Your task to perform on an android device: open app "Pinterest" Image 0: 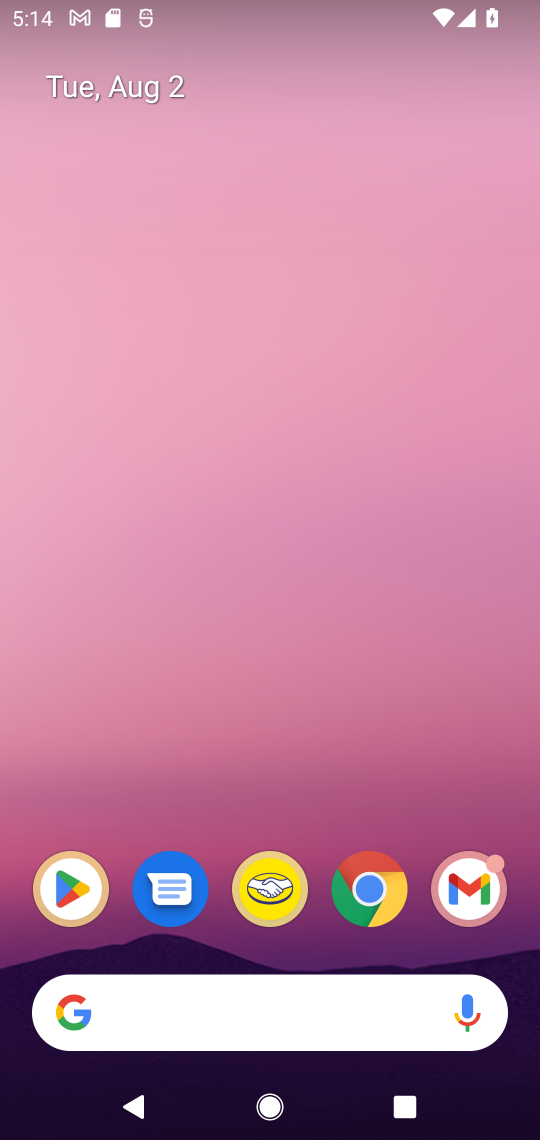
Step 0: drag from (425, 799) to (414, 119)
Your task to perform on an android device: open app "Pinterest" Image 1: 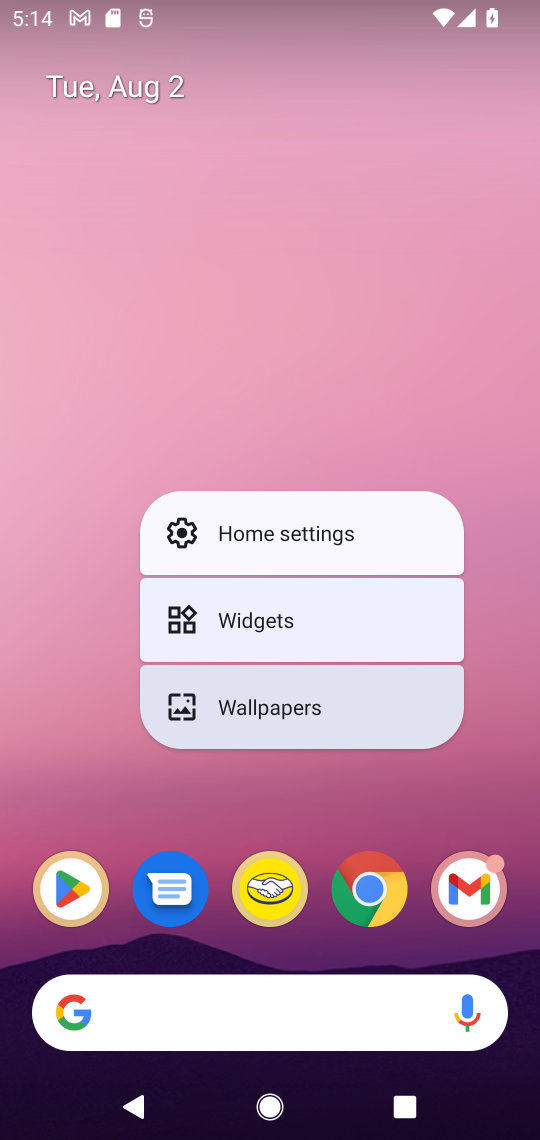
Step 1: click (503, 702)
Your task to perform on an android device: open app "Pinterest" Image 2: 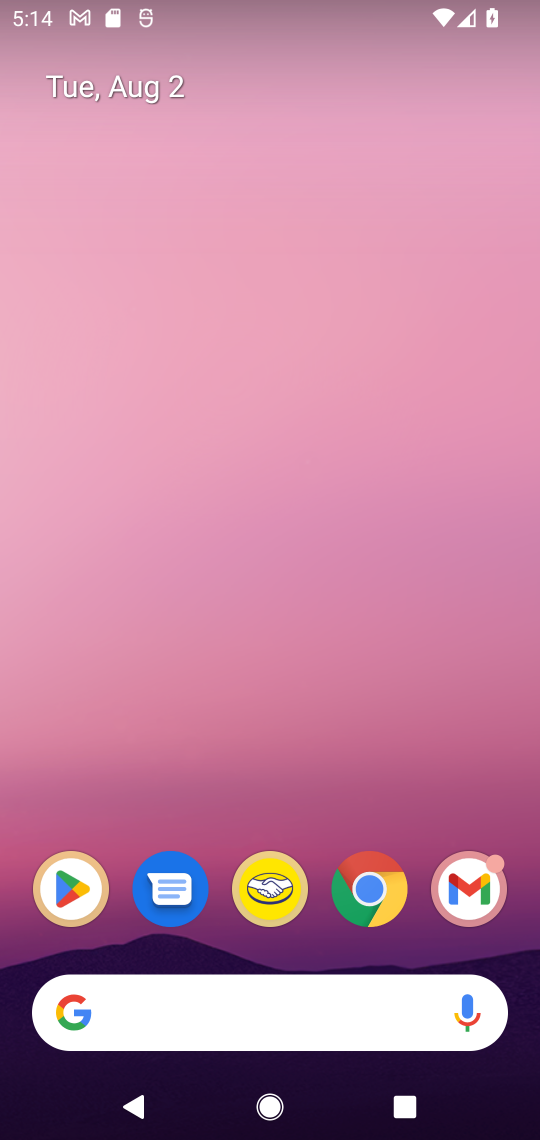
Step 2: drag from (367, 751) to (344, 133)
Your task to perform on an android device: open app "Pinterest" Image 3: 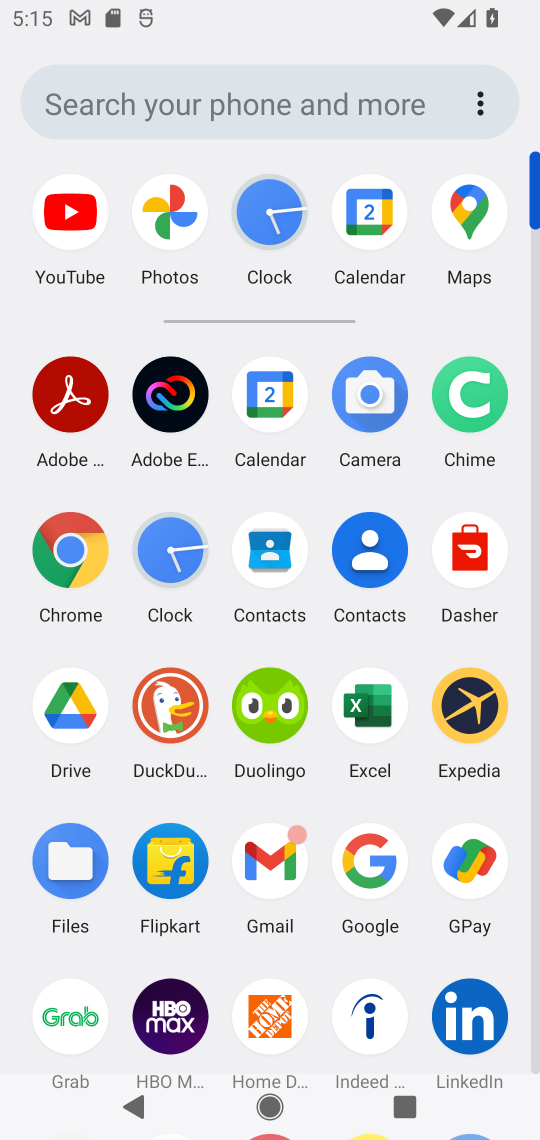
Step 3: drag from (501, 956) to (512, 405)
Your task to perform on an android device: open app "Pinterest" Image 4: 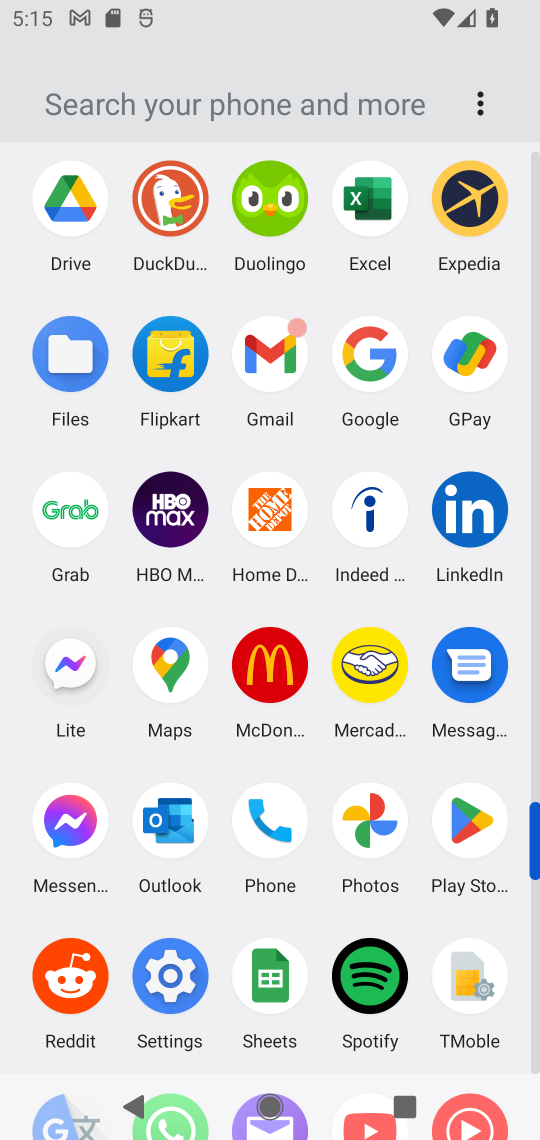
Step 4: click (472, 826)
Your task to perform on an android device: open app "Pinterest" Image 5: 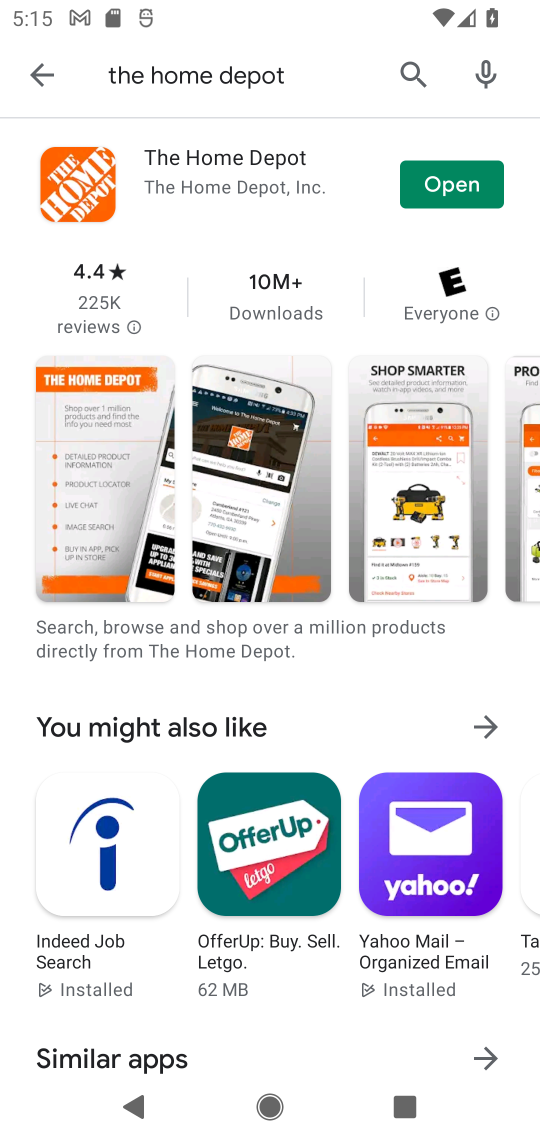
Step 5: click (414, 74)
Your task to perform on an android device: open app "Pinterest" Image 6: 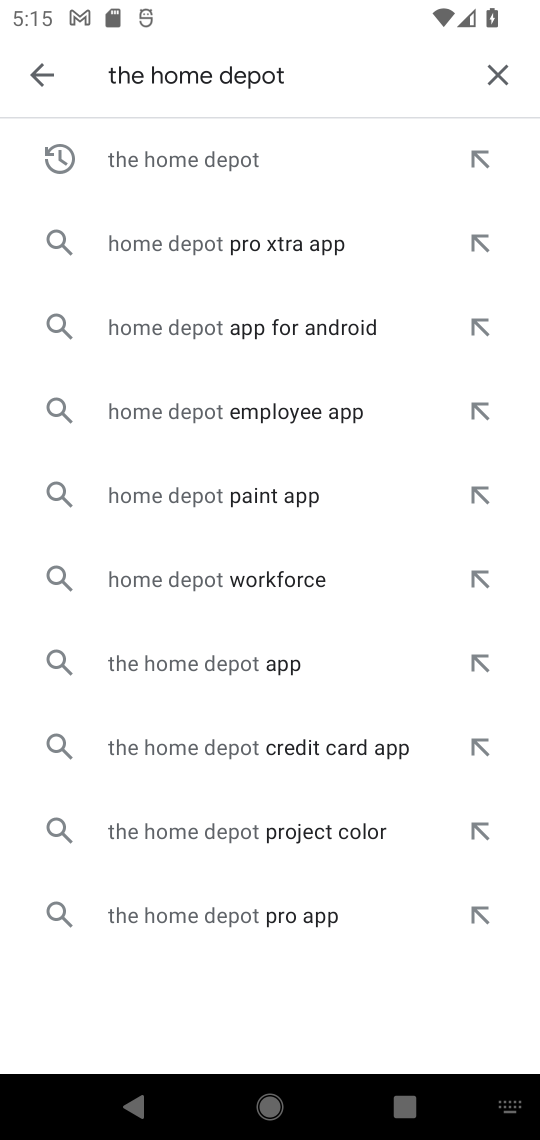
Step 6: click (497, 70)
Your task to perform on an android device: open app "Pinterest" Image 7: 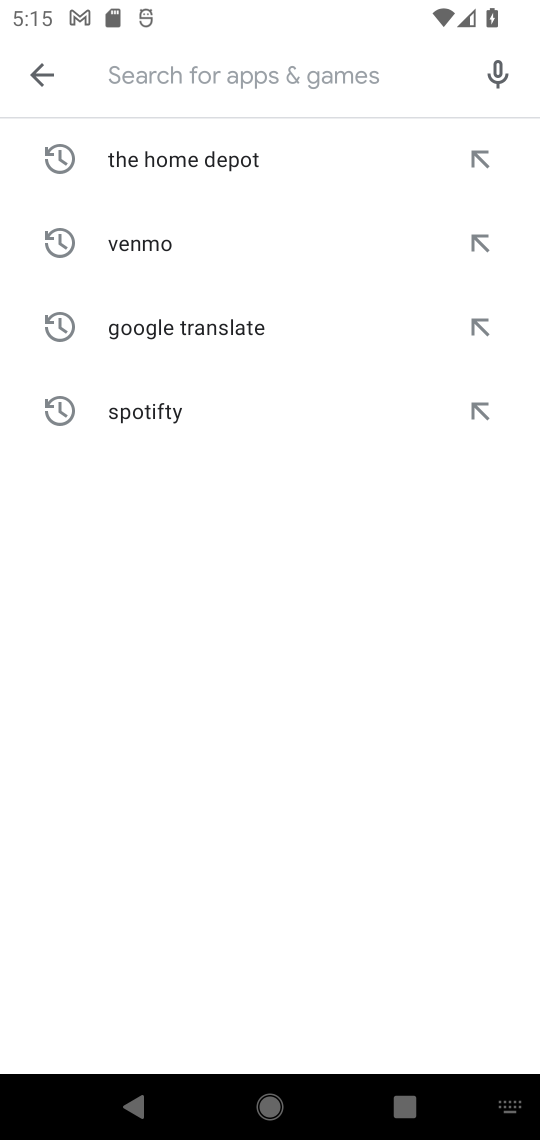
Step 7: type "pinterest"
Your task to perform on an android device: open app "Pinterest" Image 8: 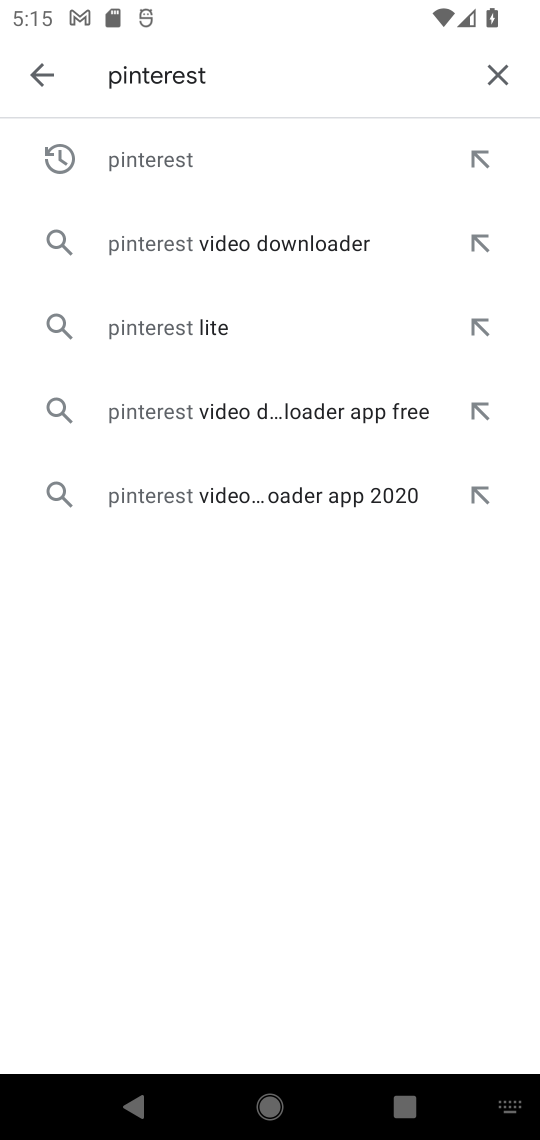
Step 8: click (168, 155)
Your task to perform on an android device: open app "Pinterest" Image 9: 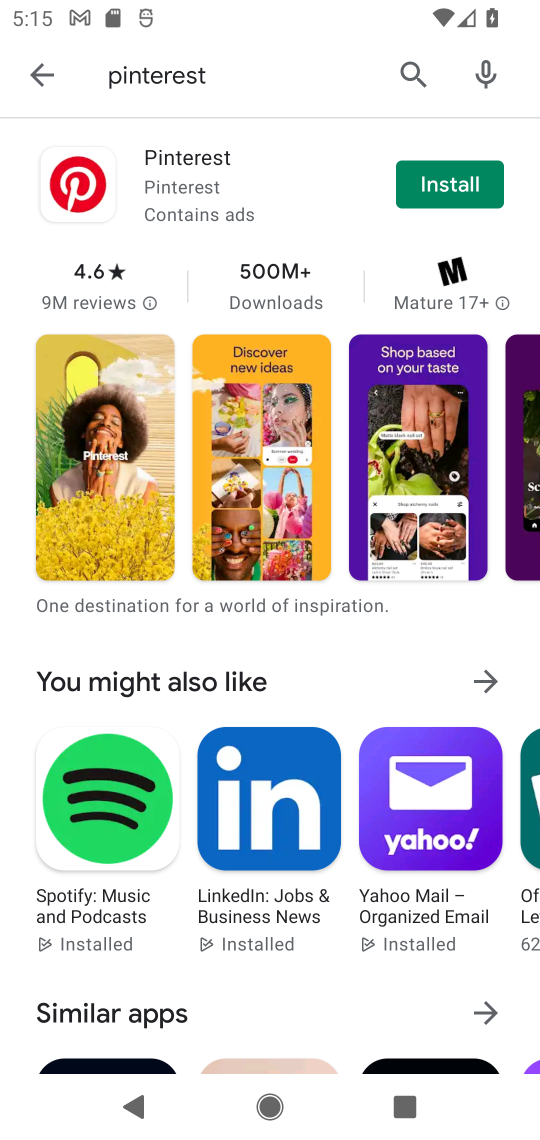
Step 9: task complete